Your task to perform on an android device: Open ESPN.com Image 0: 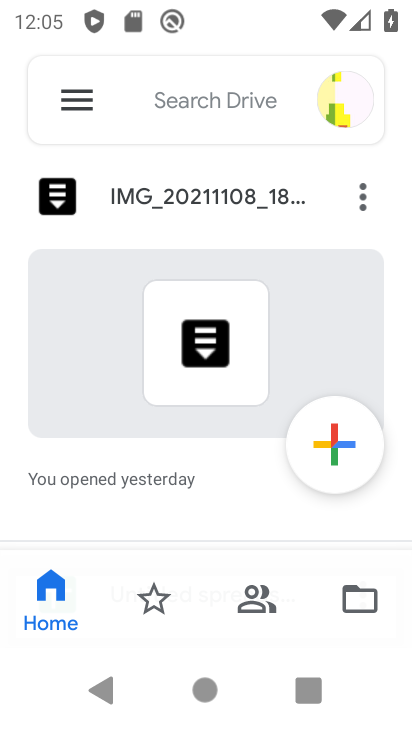
Step 0: press home button
Your task to perform on an android device: Open ESPN.com Image 1: 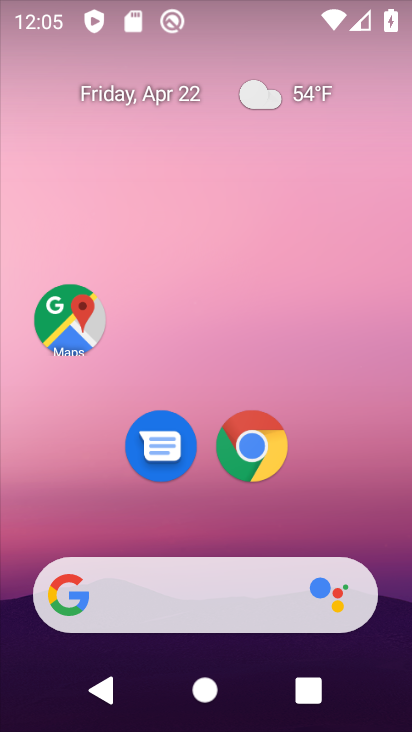
Step 1: click (243, 428)
Your task to perform on an android device: Open ESPN.com Image 2: 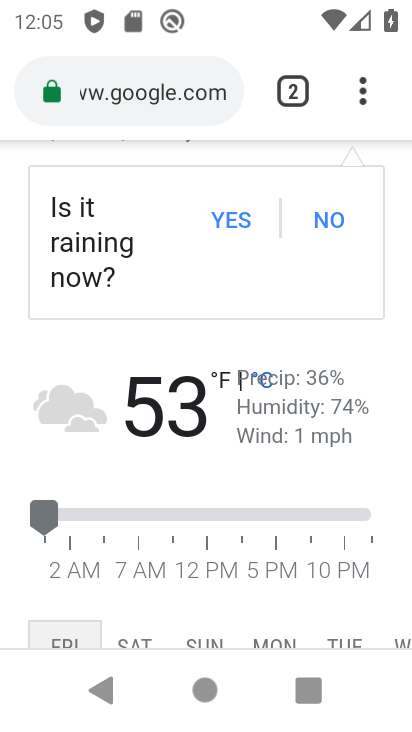
Step 2: click (162, 96)
Your task to perform on an android device: Open ESPN.com Image 3: 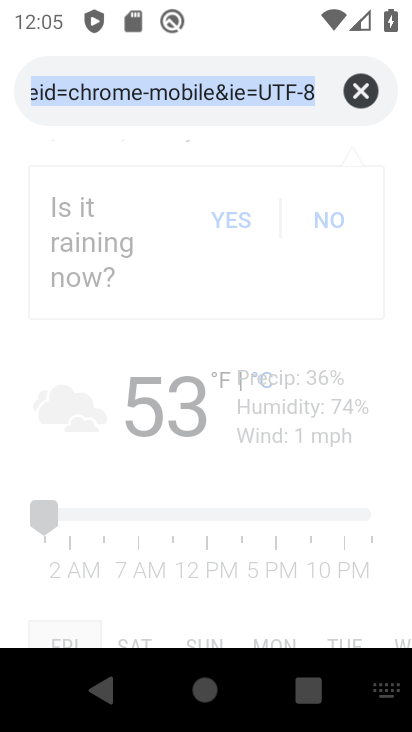
Step 3: type "espn"
Your task to perform on an android device: Open ESPN.com Image 4: 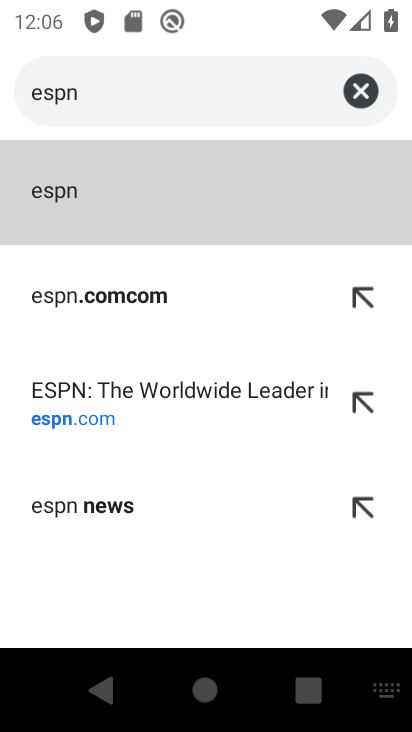
Step 4: click (105, 419)
Your task to perform on an android device: Open ESPN.com Image 5: 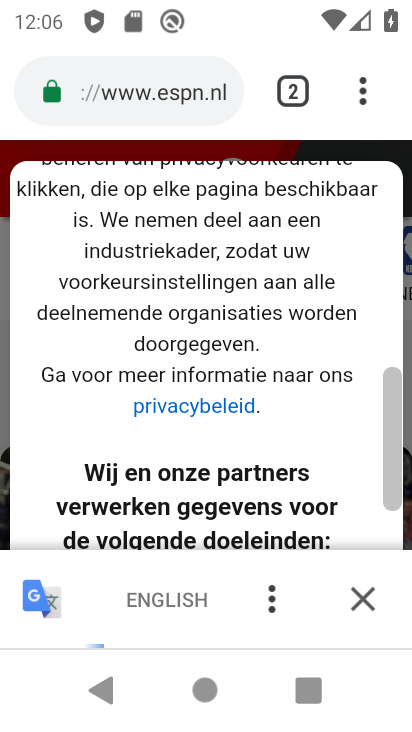
Step 5: task complete